Your task to perform on an android device: uninstall "Nova Launcher" Image 0: 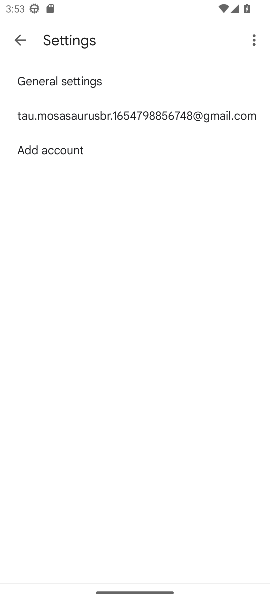
Step 0: press home button
Your task to perform on an android device: uninstall "Nova Launcher" Image 1: 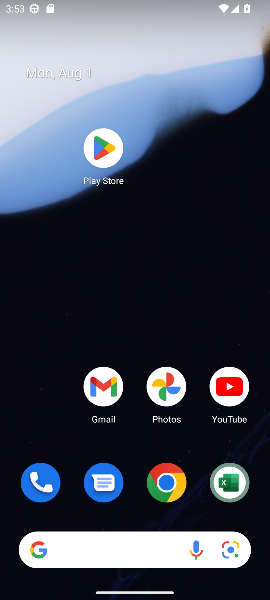
Step 1: click (102, 151)
Your task to perform on an android device: uninstall "Nova Launcher" Image 2: 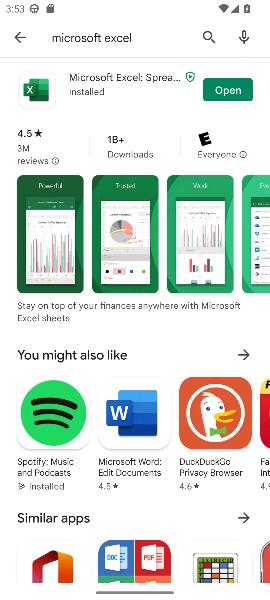
Step 2: click (207, 32)
Your task to perform on an android device: uninstall "Nova Launcher" Image 3: 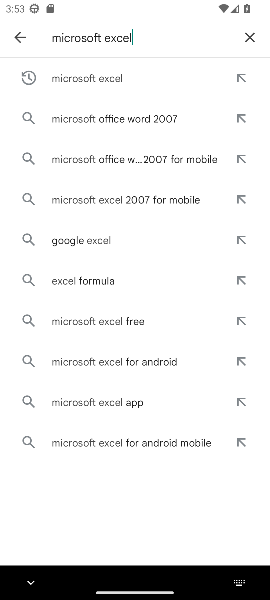
Step 3: click (246, 37)
Your task to perform on an android device: uninstall "Nova Launcher" Image 4: 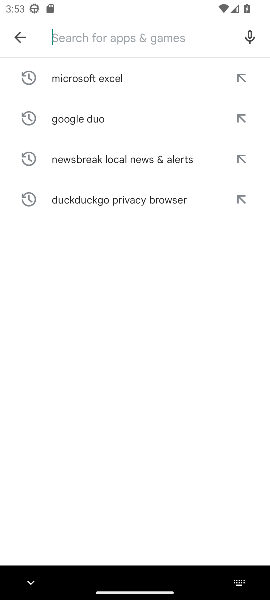
Step 4: type "Nova Launcher"
Your task to perform on an android device: uninstall "Nova Launcher" Image 5: 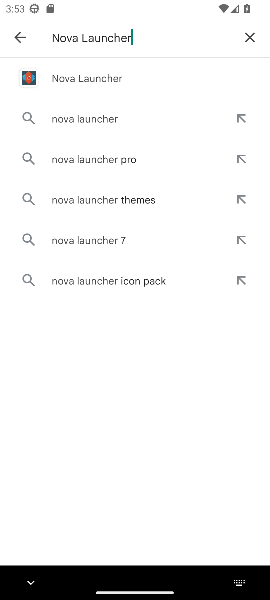
Step 5: click (98, 78)
Your task to perform on an android device: uninstall "Nova Launcher" Image 6: 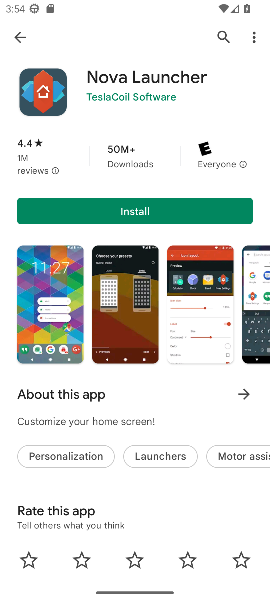
Step 6: task complete